Your task to perform on an android device: Open Google Chrome and click the shortcut for Amazon.com Image 0: 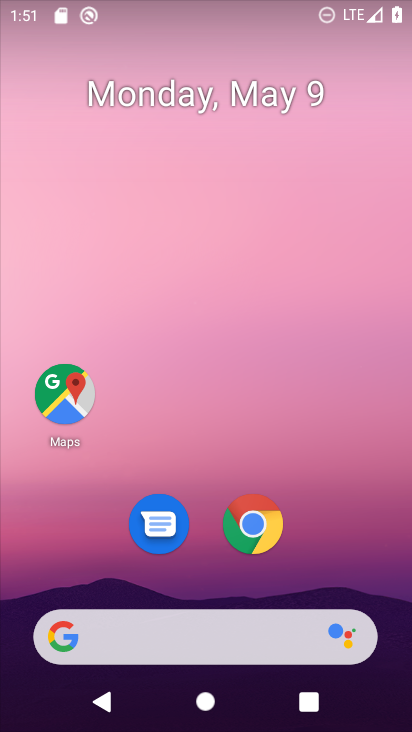
Step 0: click (248, 523)
Your task to perform on an android device: Open Google Chrome and click the shortcut for Amazon.com Image 1: 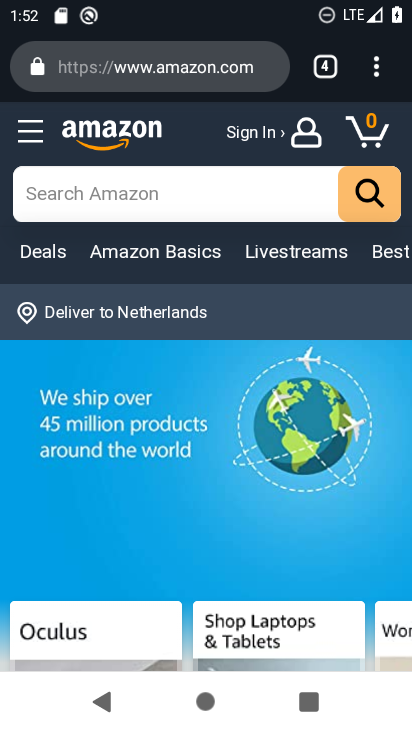
Step 1: drag from (380, 69) to (234, 122)
Your task to perform on an android device: Open Google Chrome and click the shortcut for Amazon.com Image 2: 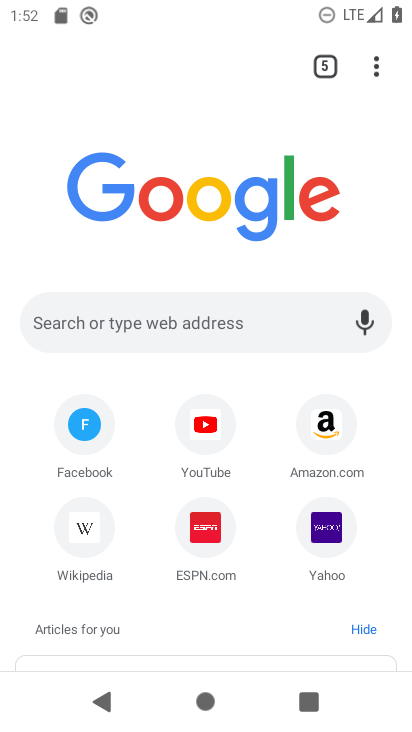
Step 2: click (324, 423)
Your task to perform on an android device: Open Google Chrome and click the shortcut for Amazon.com Image 3: 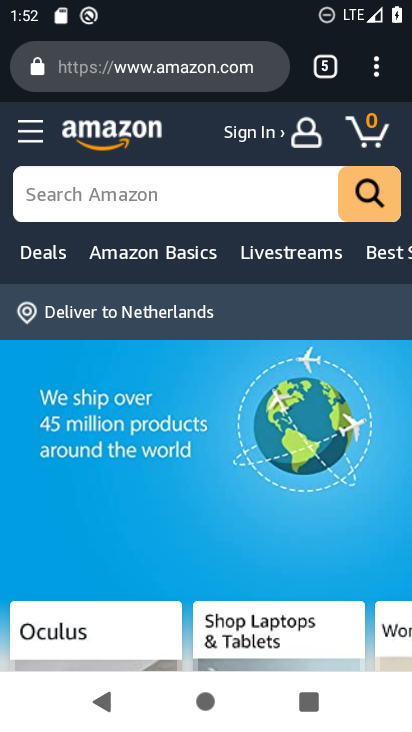
Step 3: task complete